Your task to perform on an android device: Open Google Chrome Image 0: 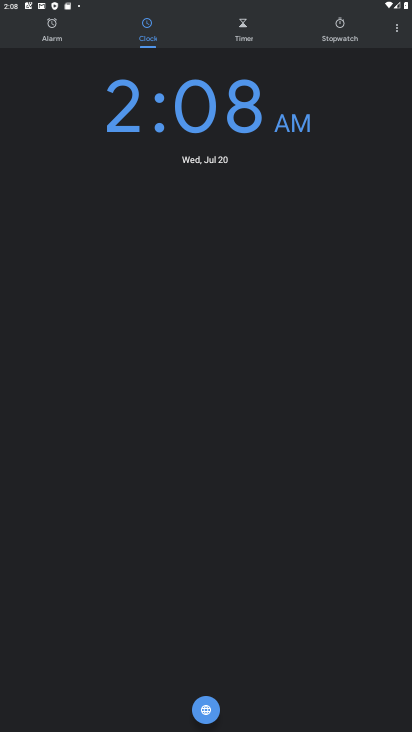
Step 0: press home button
Your task to perform on an android device: Open Google Chrome Image 1: 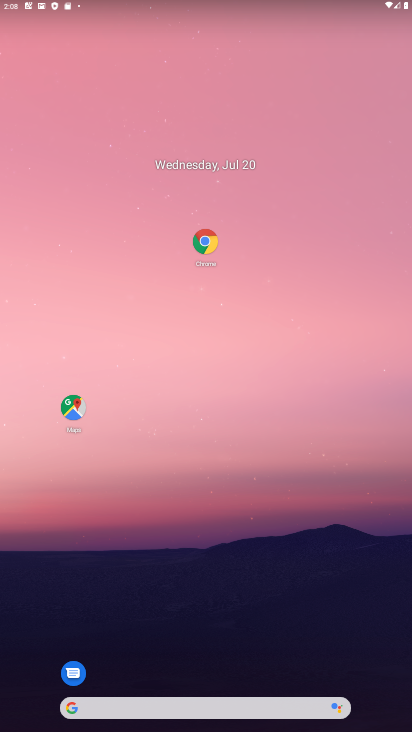
Step 1: click (206, 242)
Your task to perform on an android device: Open Google Chrome Image 2: 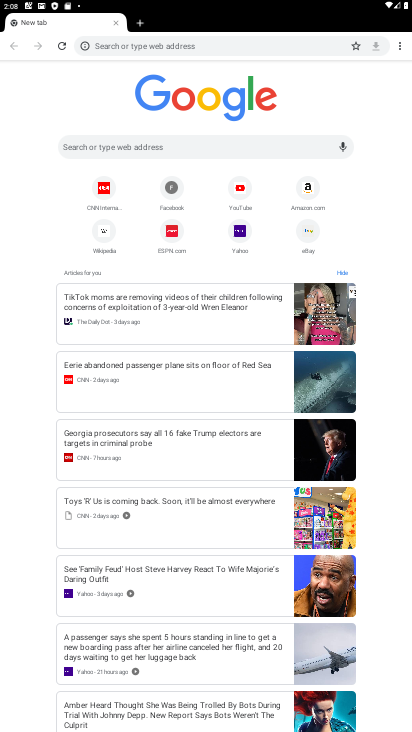
Step 2: task complete